Your task to perform on an android device: change text size in settings app Image 0: 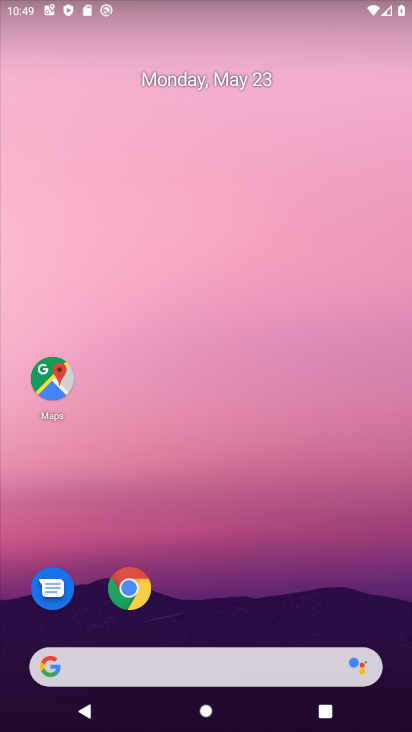
Step 0: drag from (293, 607) to (266, 76)
Your task to perform on an android device: change text size in settings app Image 1: 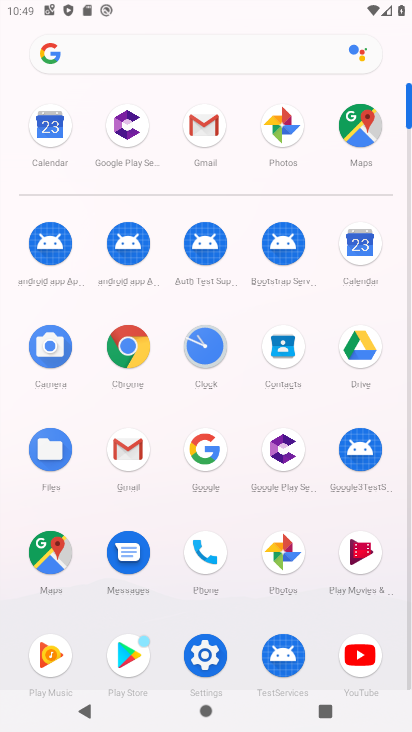
Step 1: click (206, 660)
Your task to perform on an android device: change text size in settings app Image 2: 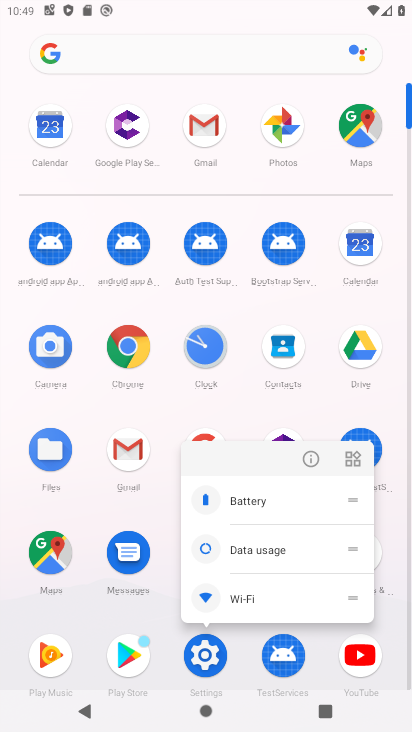
Step 2: click (204, 658)
Your task to perform on an android device: change text size in settings app Image 3: 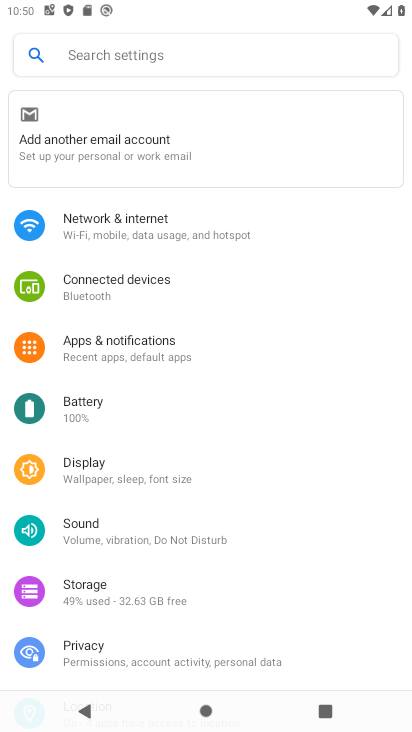
Step 3: click (151, 472)
Your task to perform on an android device: change text size in settings app Image 4: 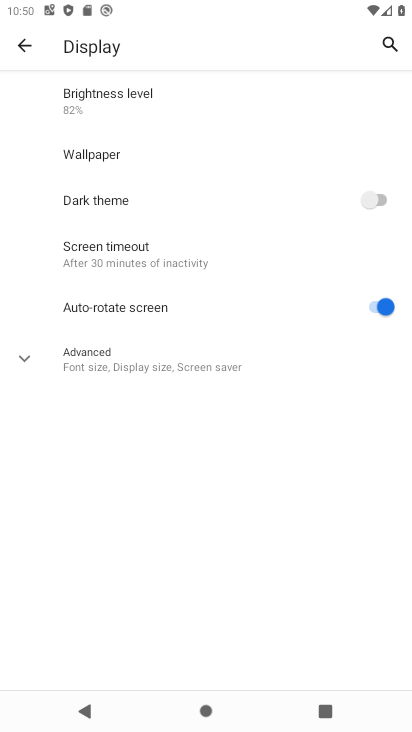
Step 4: click (67, 361)
Your task to perform on an android device: change text size in settings app Image 5: 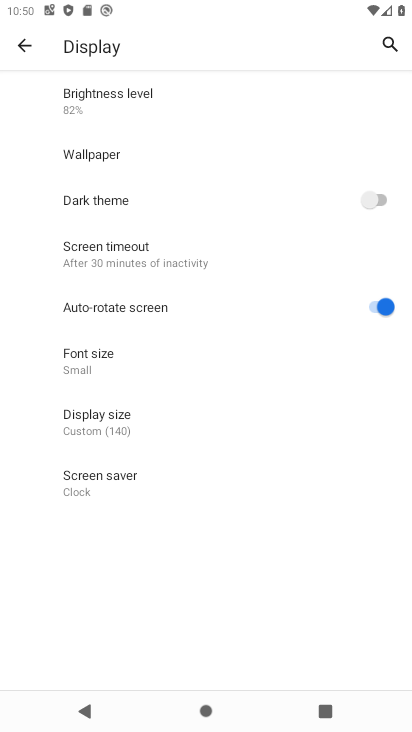
Step 5: click (87, 364)
Your task to perform on an android device: change text size in settings app Image 6: 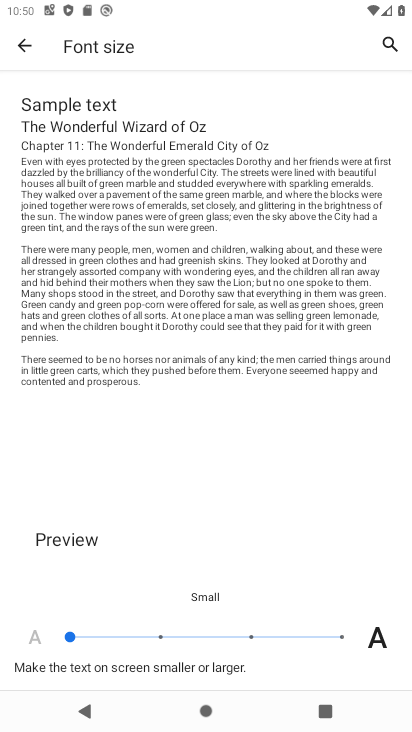
Step 6: click (125, 635)
Your task to perform on an android device: change text size in settings app Image 7: 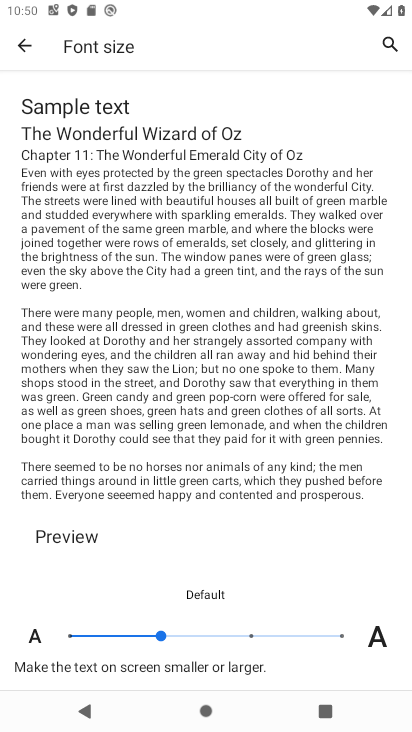
Step 7: task complete